Your task to perform on an android device: install app "Life360: Find Family & Friends" Image 0: 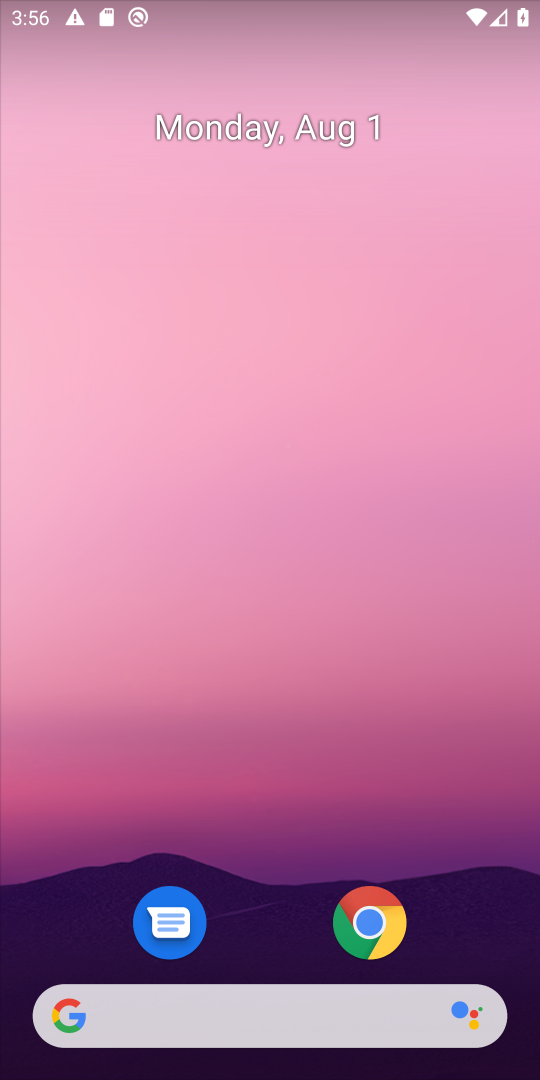
Step 0: drag from (275, 835) to (298, 14)
Your task to perform on an android device: install app "Life360: Find Family & Friends" Image 1: 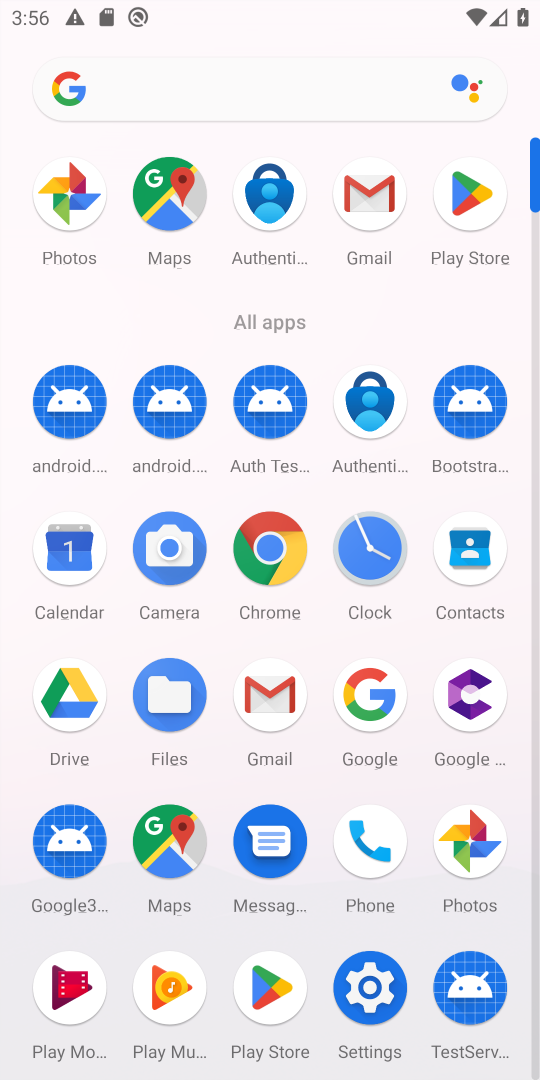
Step 1: click (468, 218)
Your task to perform on an android device: install app "Life360: Find Family & Friends" Image 2: 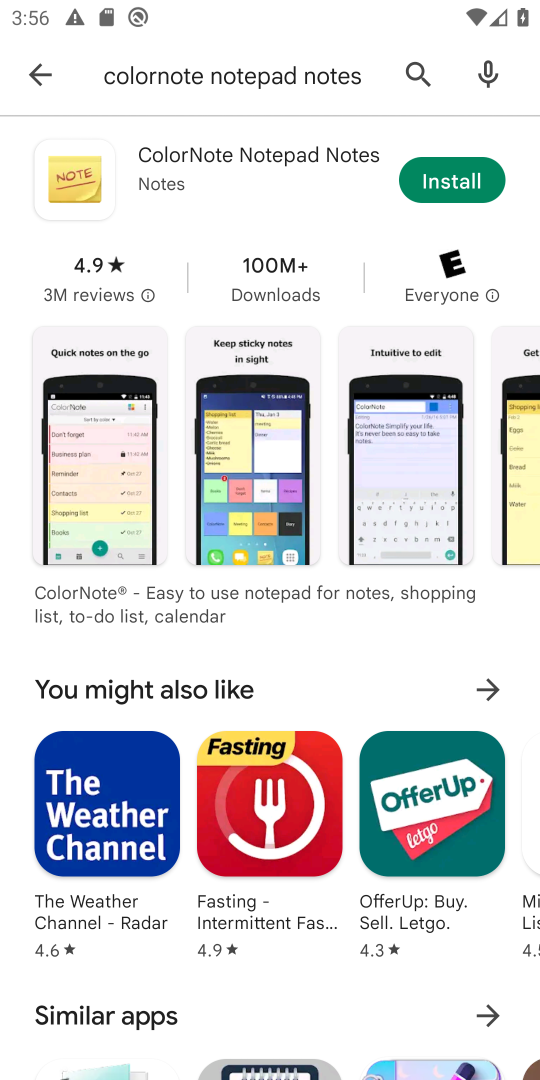
Step 2: click (422, 61)
Your task to perform on an android device: install app "Life360: Find Family & Friends" Image 3: 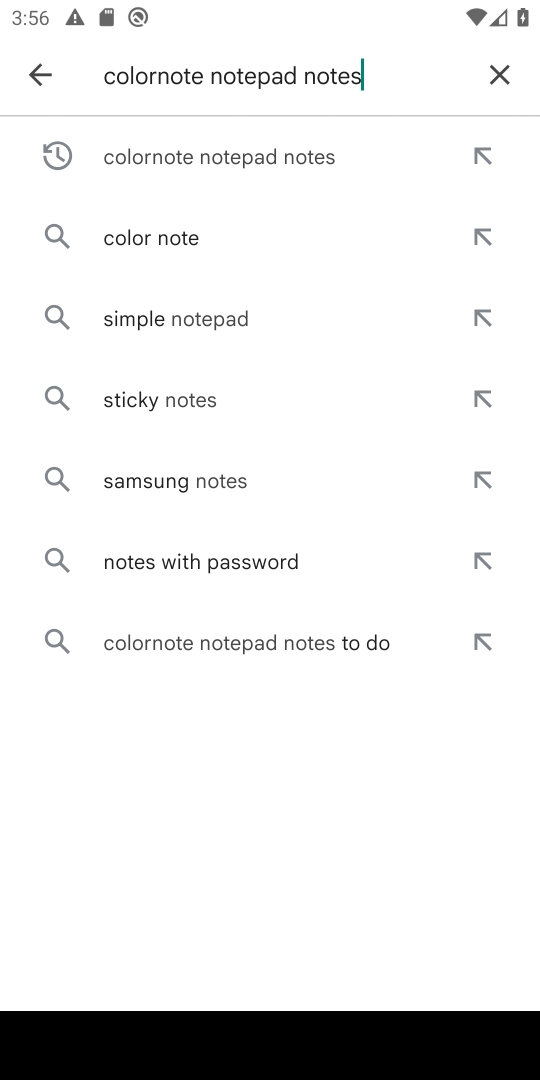
Step 3: click (486, 82)
Your task to perform on an android device: install app "Life360: Find Family & Friends" Image 4: 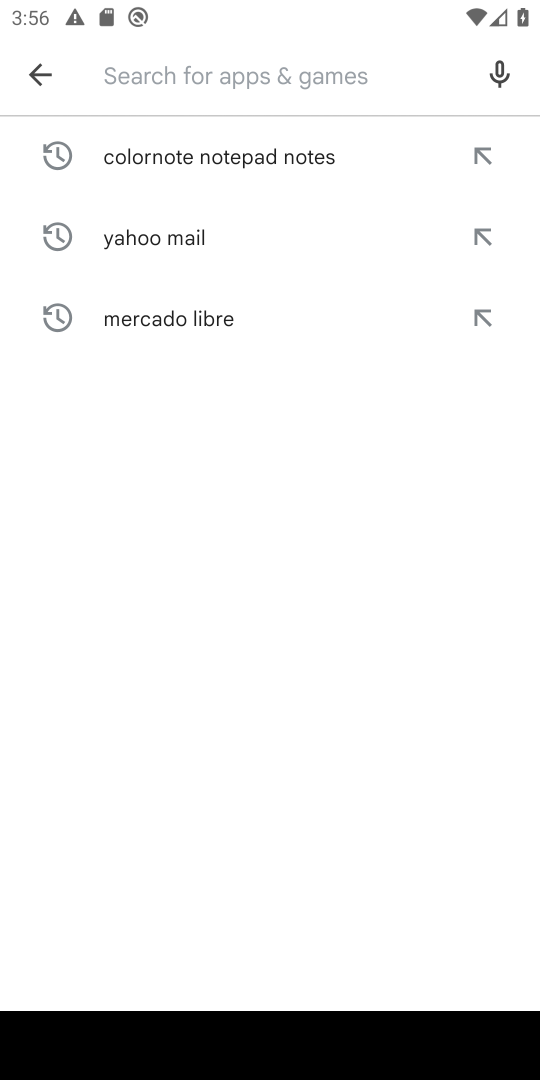
Step 4: type "Life360: Find Family & Friends"
Your task to perform on an android device: install app "Life360: Find Family & Friends" Image 5: 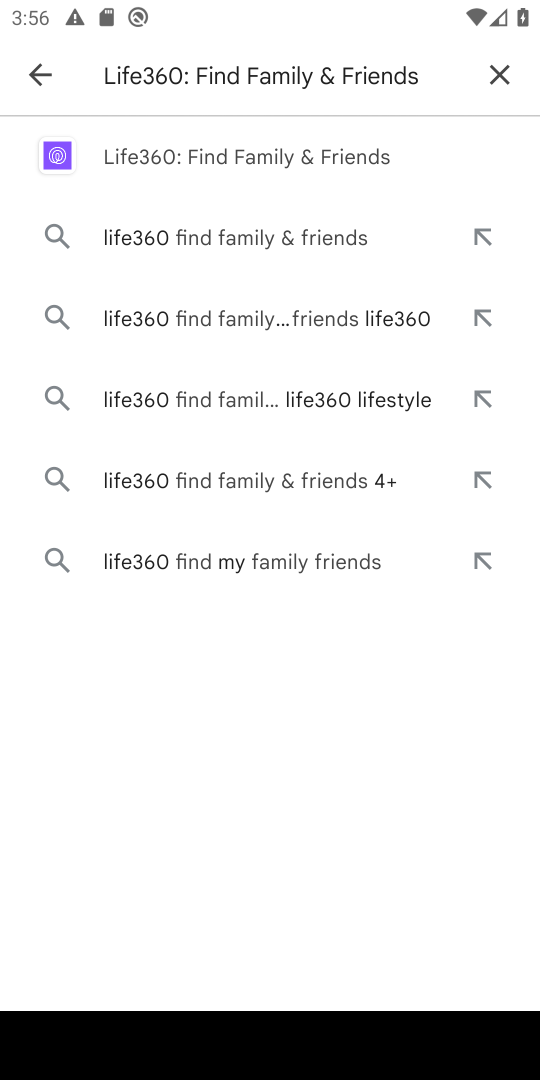
Step 5: click (226, 152)
Your task to perform on an android device: install app "Life360: Find Family & Friends" Image 6: 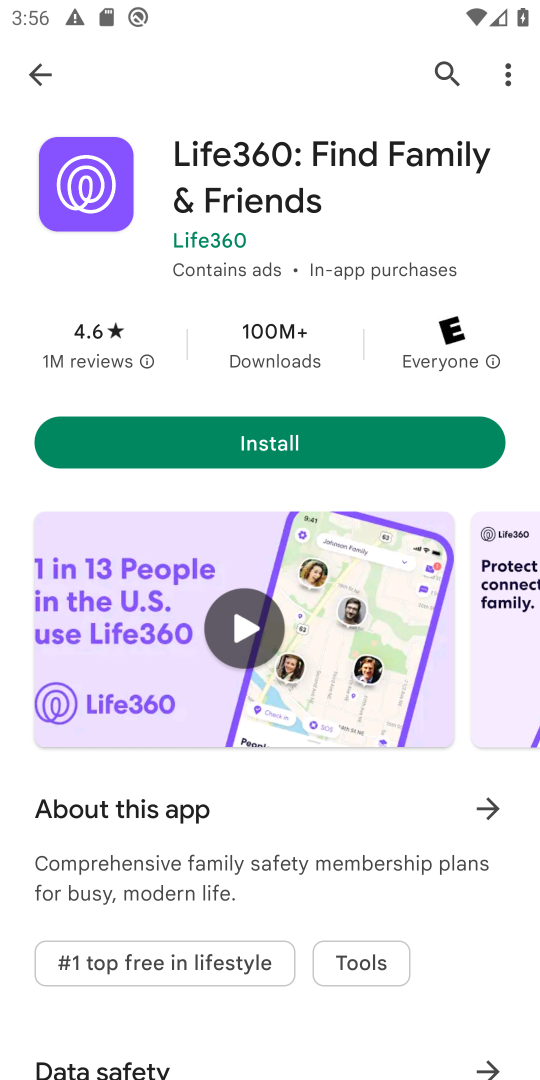
Step 6: click (237, 444)
Your task to perform on an android device: install app "Life360: Find Family & Friends" Image 7: 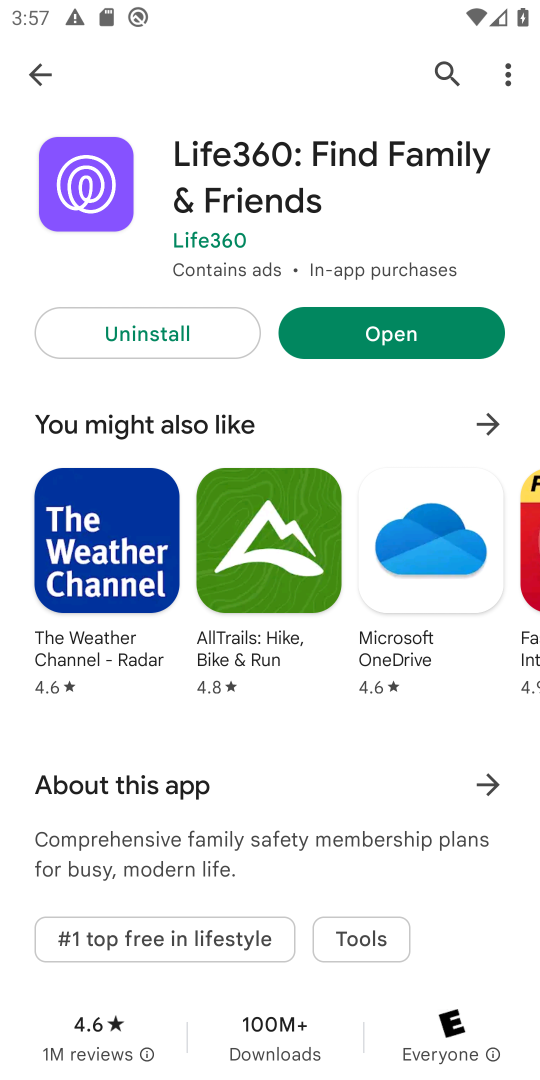
Step 7: task complete